Your task to perform on an android device: open a bookmark in the chrome app Image 0: 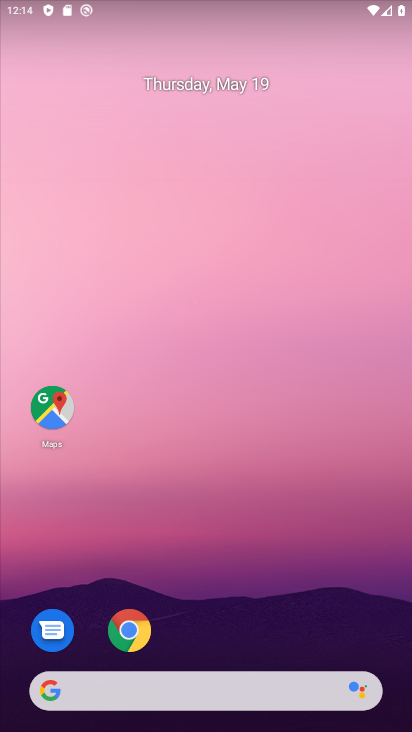
Step 0: click (133, 627)
Your task to perform on an android device: open a bookmark in the chrome app Image 1: 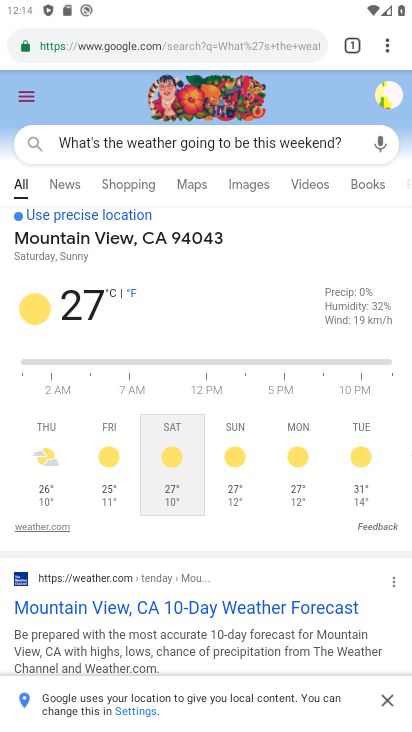
Step 1: click (387, 38)
Your task to perform on an android device: open a bookmark in the chrome app Image 2: 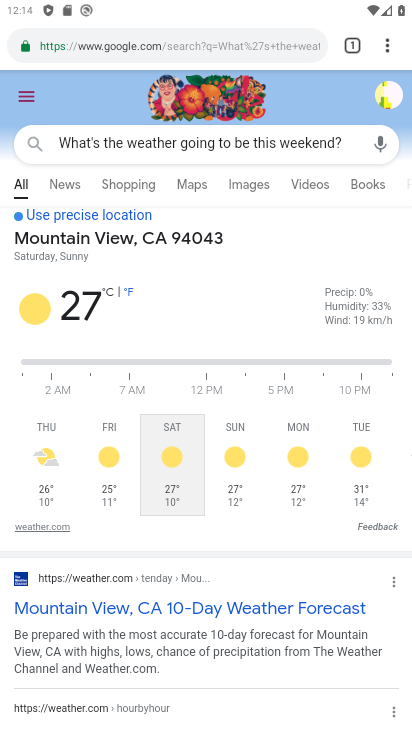
Step 2: click (384, 43)
Your task to perform on an android device: open a bookmark in the chrome app Image 3: 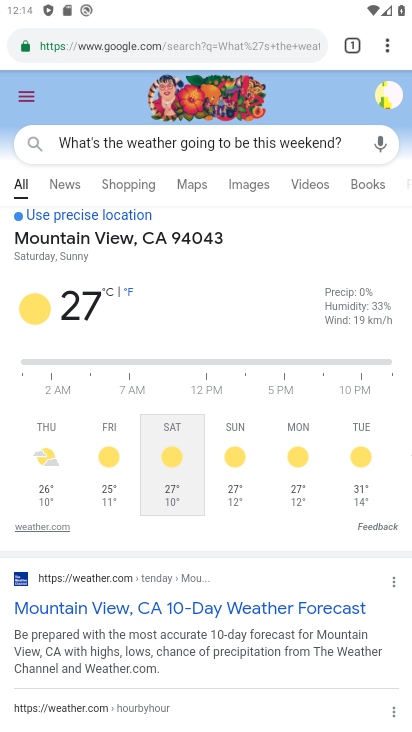
Step 3: click (394, 48)
Your task to perform on an android device: open a bookmark in the chrome app Image 4: 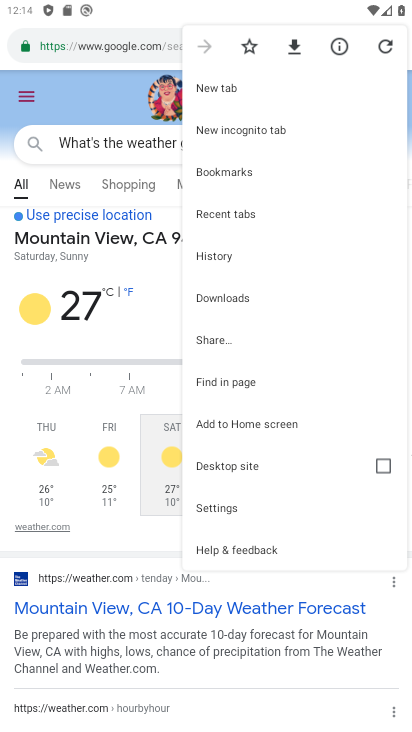
Step 4: click (256, 177)
Your task to perform on an android device: open a bookmark in the chrome app Image 5: 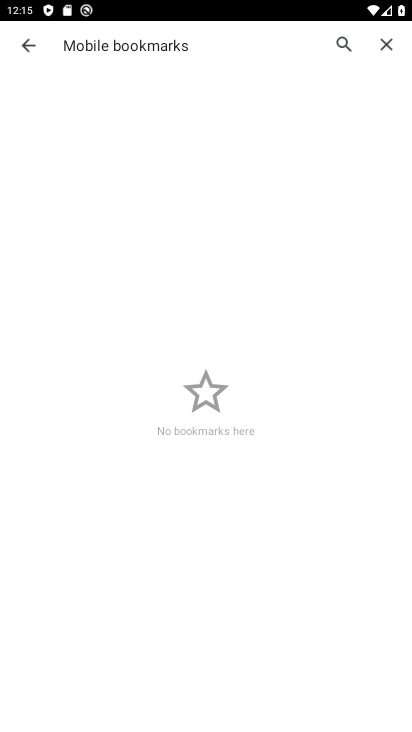
Step 5: task complete